Your task to perform on an android device: turn on improve location accuracy Image 0: 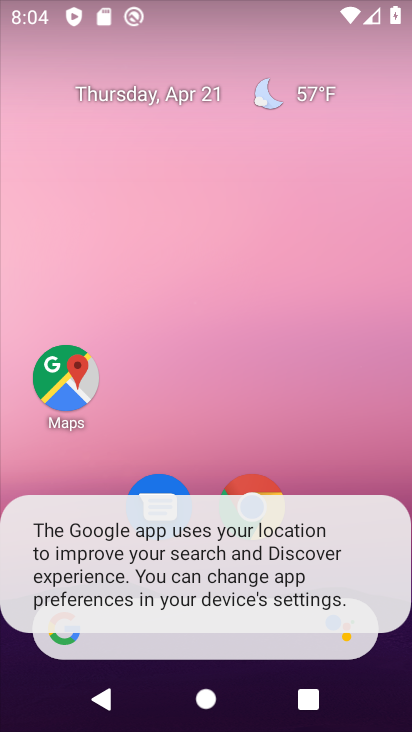
Step 0: drag from (346, 552) to (267, 120)
Your task to perform on an android device: turn on improve location accuracy Image 1: 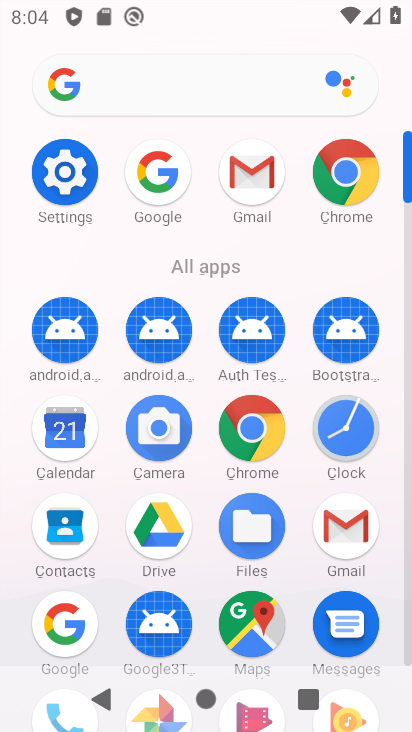
Step 1: click (69, 190)
Your task to perform on an android device: turn on improve location accuracy Image 2: 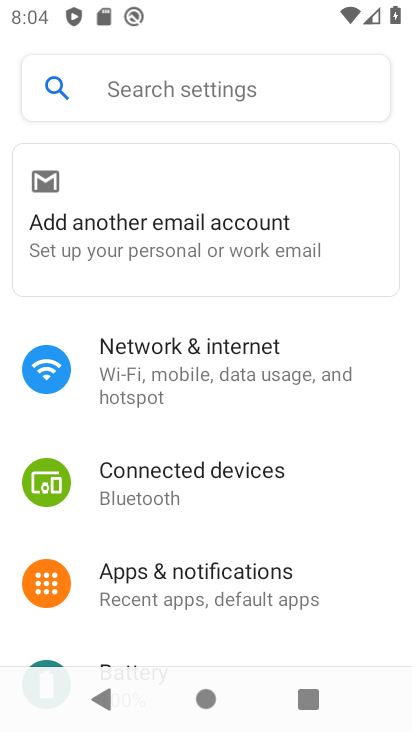
Step 2: drag from (286, 566) to (279, 106)
Your task to perform on an android device: turn on improve location accuracy Image 3: 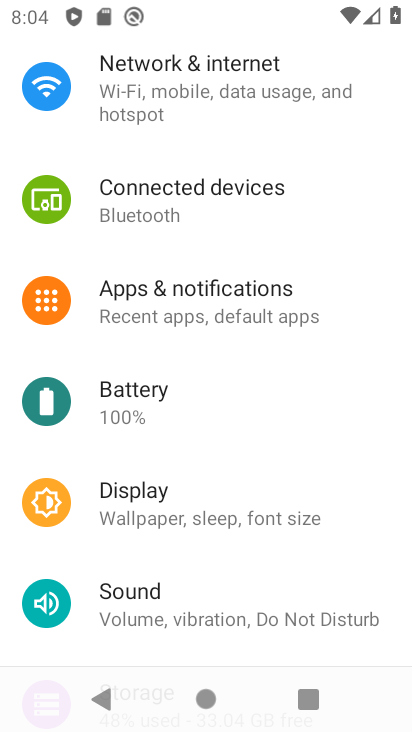
Step 3: drag from (278, 483) to (244, 77)
Your task to perform on an android device: turn on improve location accuracy Image 4: 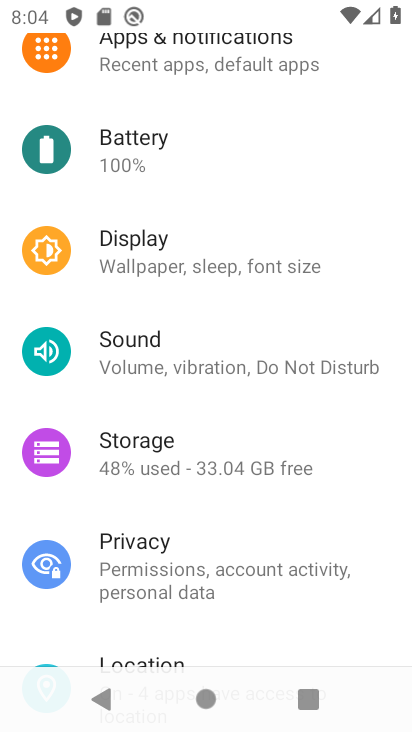
Step 4: drag from (282, 525) to (286, 104)
Your task to perform on an android device: turn on improve location accuracy Image 5: 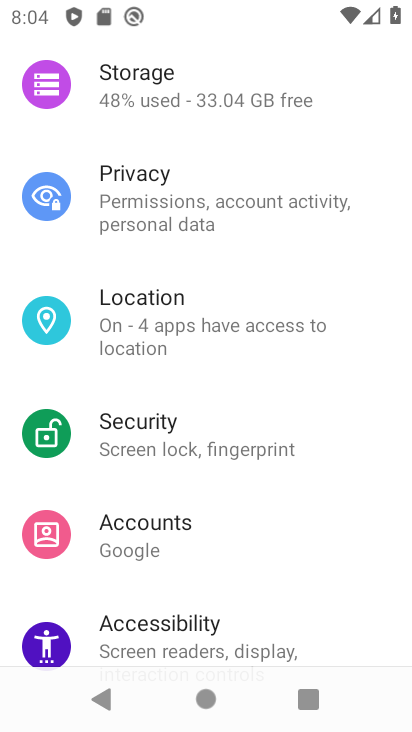
Step 5: click (150, 333)
Your task to perform on an android device: turn on improve location accuracy Image 6: 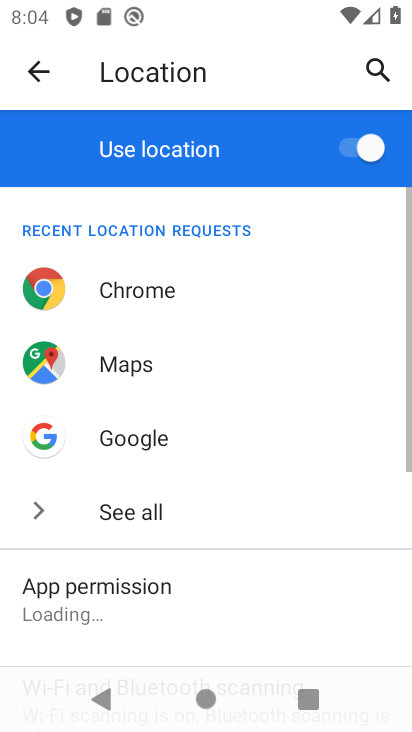
Step 6: drag from (250, 623) to (220, 141)
Your task to perform on an android device: turn on improve location accuracy Image 7: 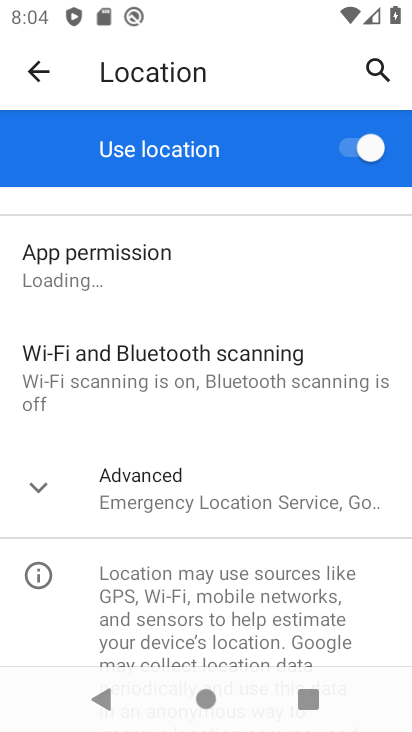
Step 7: click (189, 511)
Your task to perform on an android device: turn on improve location accuracy Image 8: 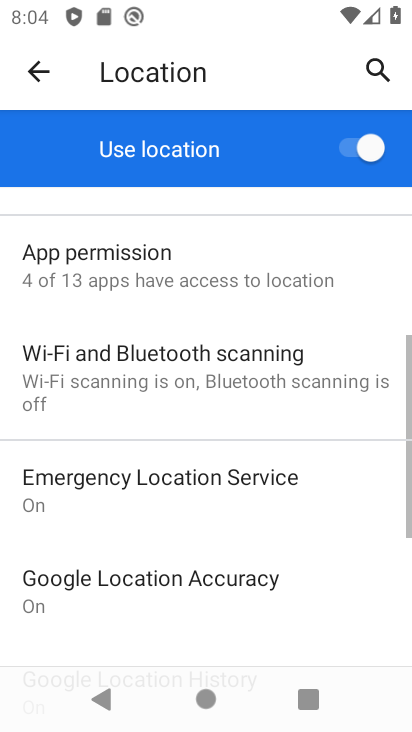
Step 8: click (155, 578)
Your task to perform on an android device: turn on improve location accuracy Image 9: 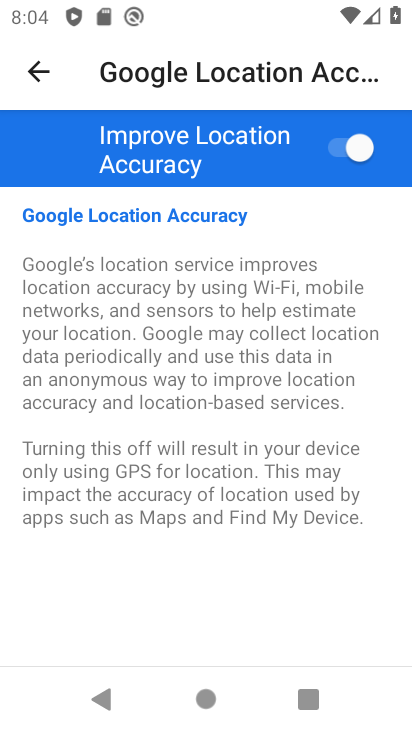
Step 9: task complete